Your task to perform on an android device: Open Google Maps and go to "Timeline" Image 0: 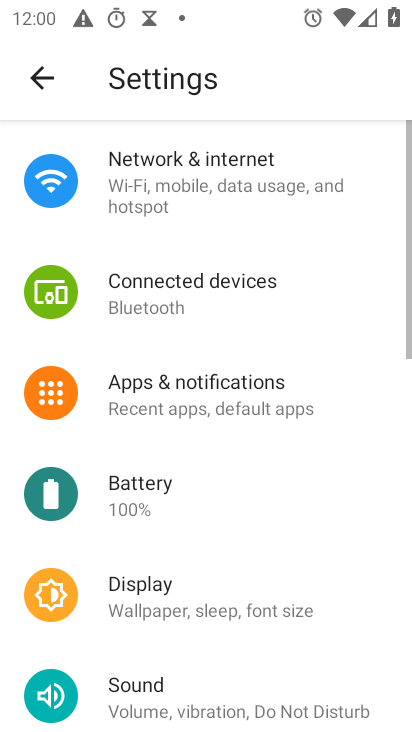
Step 0: press home button
Your task to perform on an android device: Open Google Maps and go to "Timeline" Image 1: 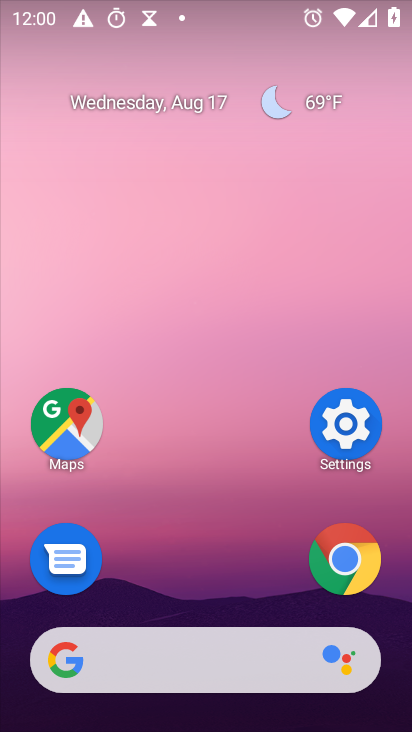
Step 1: click (71, 426)
Your task to perform on an android device: Open Google Maps and go to "Timeline" Image 2: 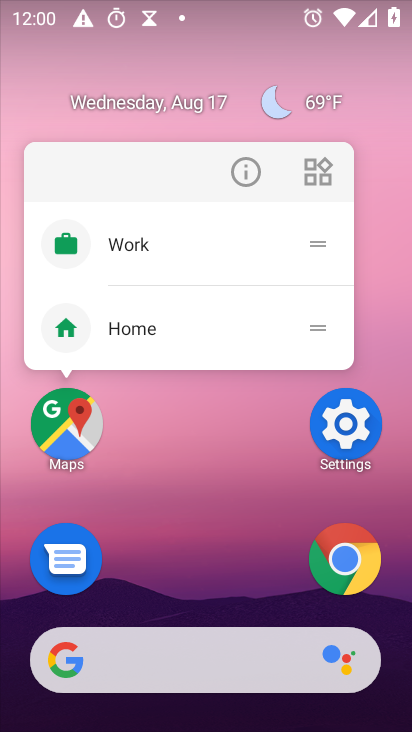
Step 2: click (60, 439)
Your task to perform on an android device: Open Google Maps and go to "Timeline" Image 3: 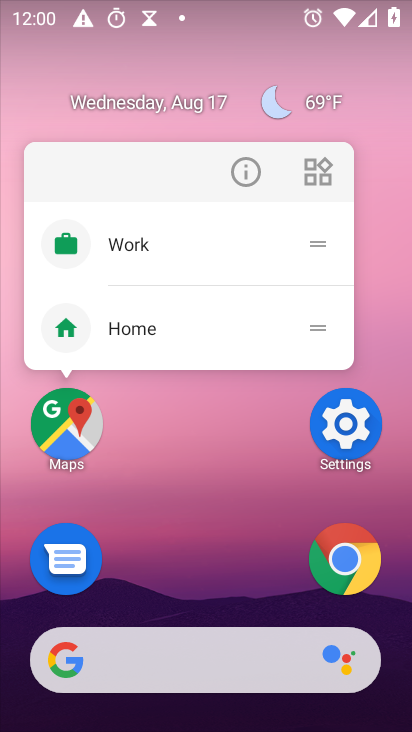
Step 3: click (67, 423)
Your task to perform on an android device: Open Google Maps and go to "Timeline" Image 4: 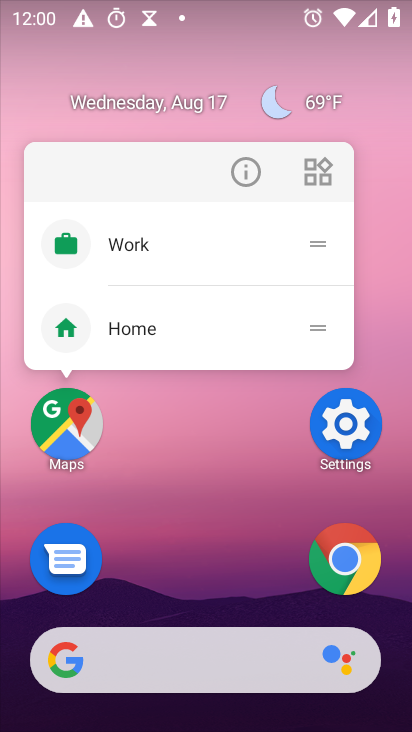
Step 4: click (67, 422)
Your task to perform on an android device: Open Google Maps and go to "Timeline" Image 5: 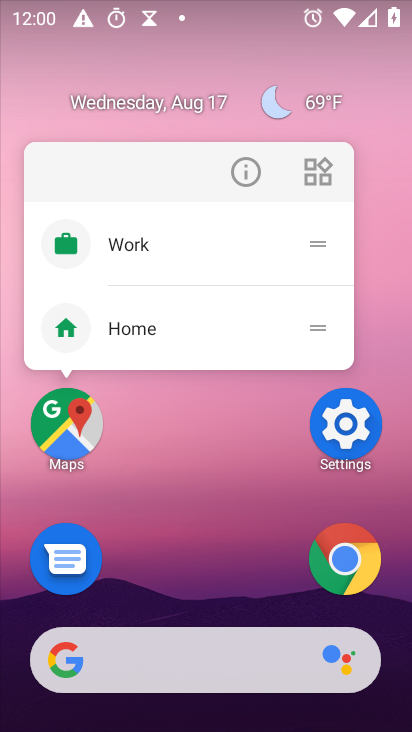
Step 5: click (65, 433)
Your task to perform on an android device: Open Google Maps and go to "Timeline" Image 6: 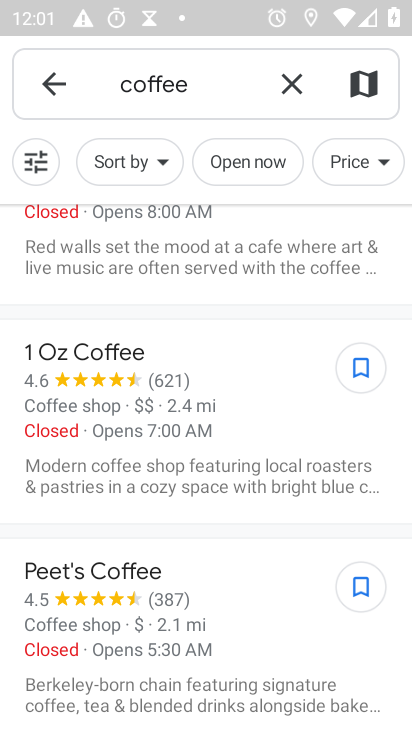
Step 6: click (51, 79)
Your task to perform on an android device: Open Google Maps and go to "Timeline" Image 7: 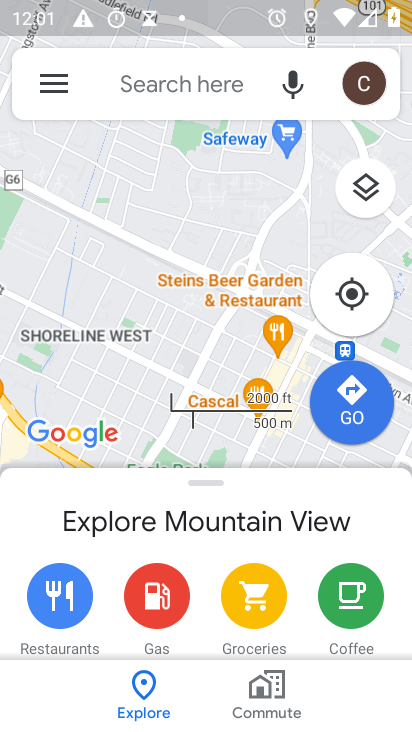
Step 7: click (51, 79)
Your task to perform on an android device: Open Google Maps and go to "Timeline" Image 8: 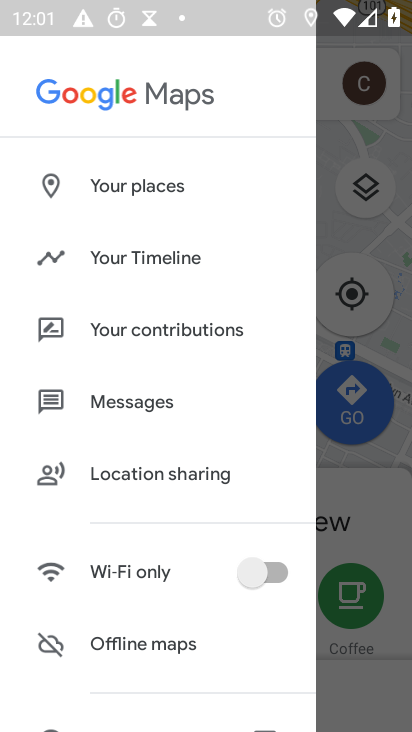
Step 8: click (146, 257)
Your task to perform on an android device: Open Google Maps and go to "Timeline" Image 9: 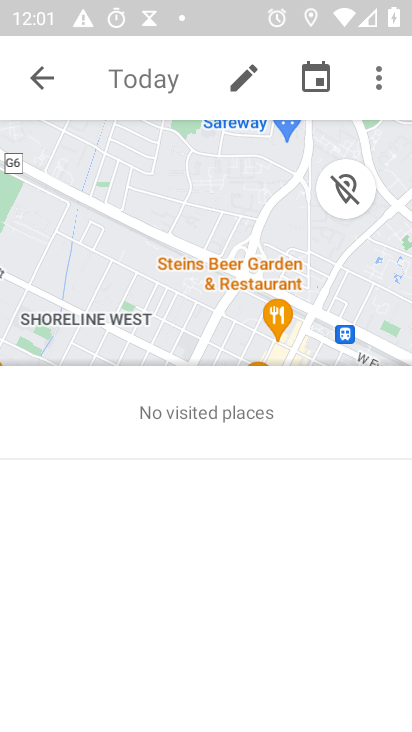
Step 9: task complete